Your task to perform on an android device: What is the recent news? Image 0: 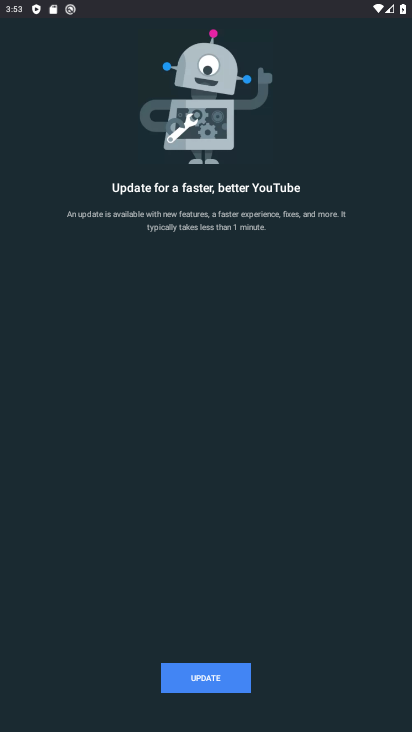
Step 0: press home button
Your task to perform on an android device: What is the recent news? Image 1: 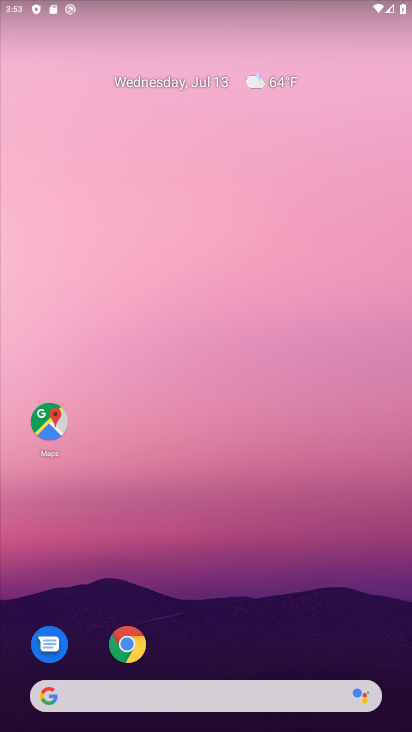
Step 1: click (220, 695)
Your task to perform on an android device: What is the recent news? Image 2: 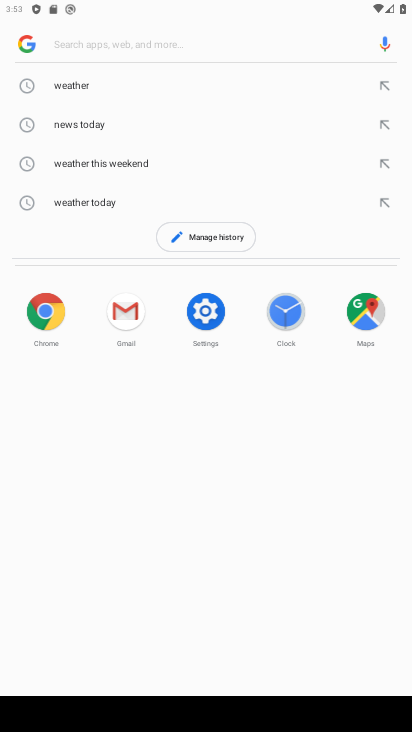
Step 2: click (91, 45)
Your task to perform on an android device: What is the recent news? Image 3: 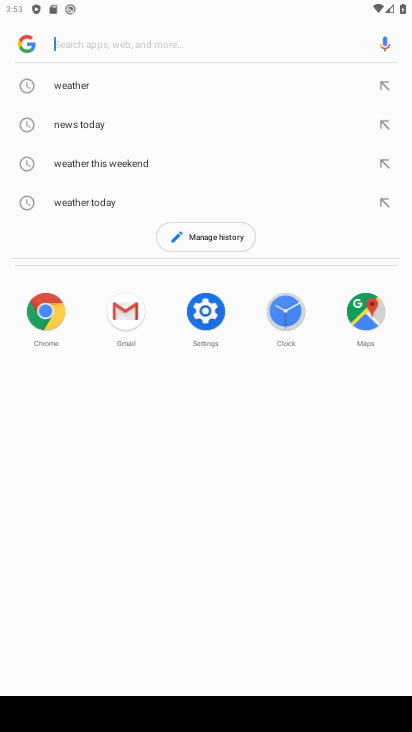
Step 3: type "recent news"
Your task to perform on an android device: What is the recent news? Image 4: 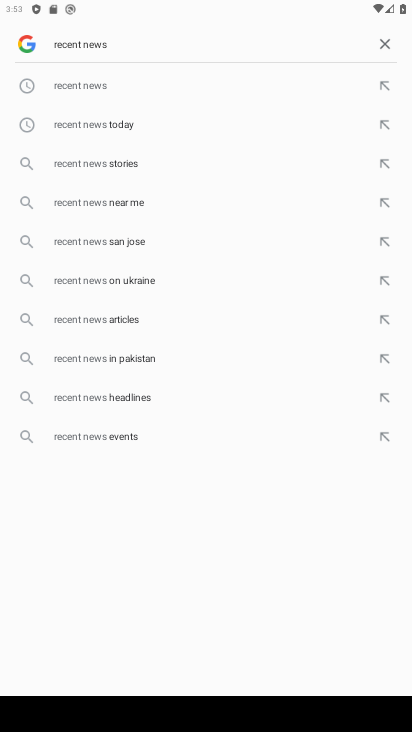
Step 4: click (102, 77)
Your task to perform on an android device: What is the recent news? Image 5: 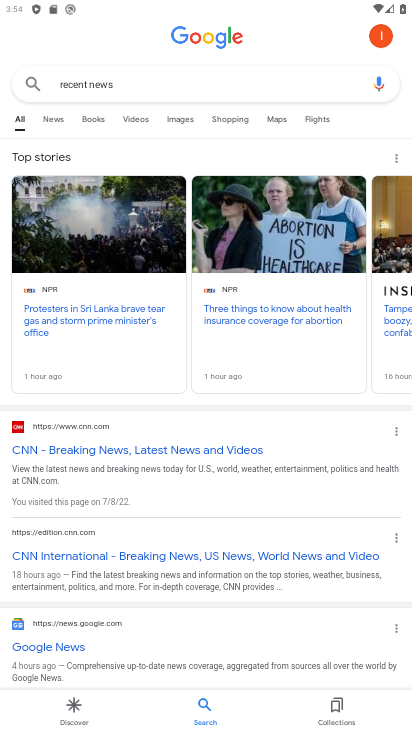
Step 5: task complete